Your task to perform on an android device: Add "logitech g933" to the cart on costco.com Image 0: 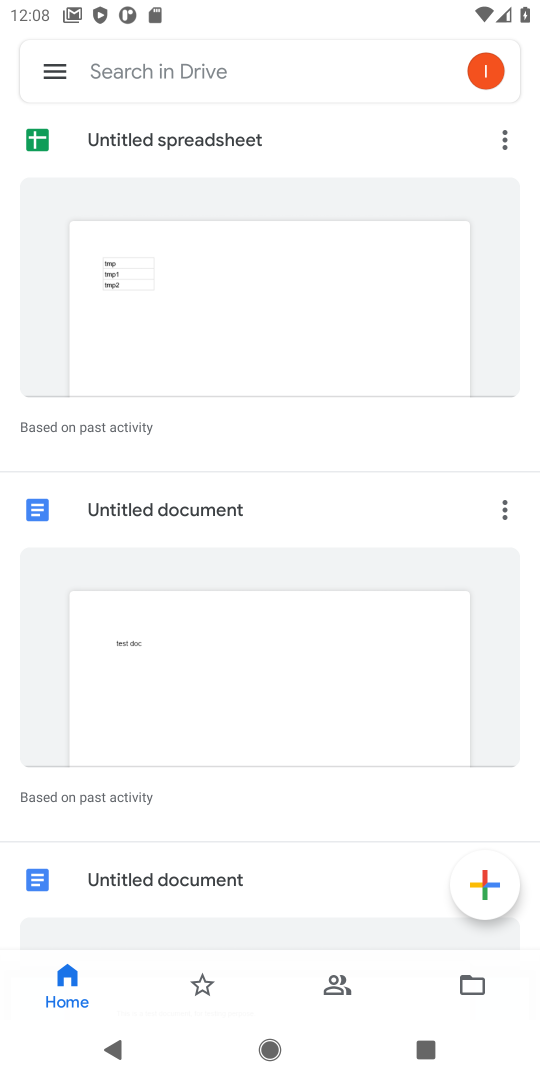
Step 0: press home button
Your task to perform on an android device: Add "logitech g933" to the cart on costco.com Image 1: 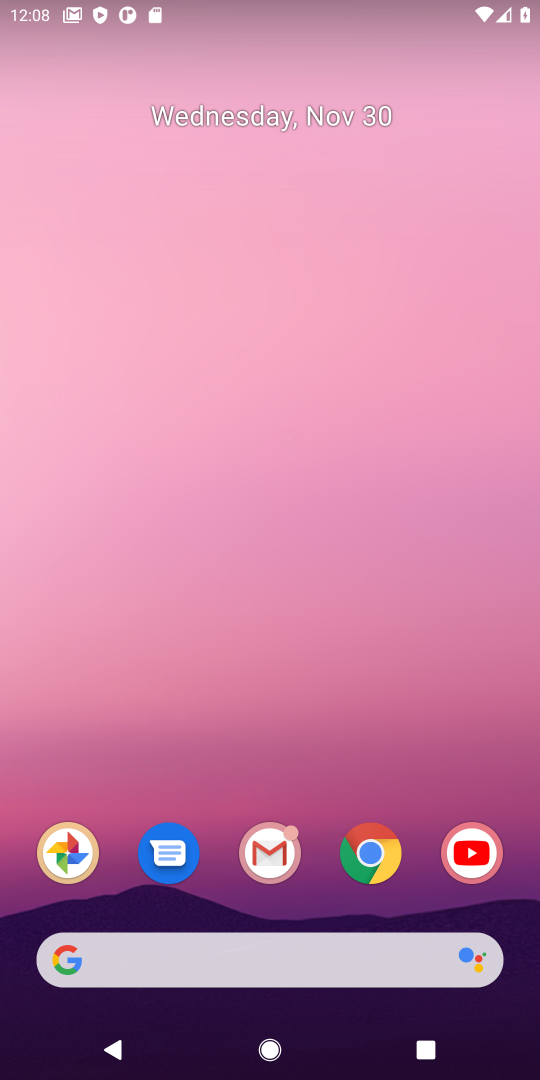
Step 1: click (364, 841)
Your task to perform on an android device: Add "logitech g933" to the cart on costco.com Image 2: 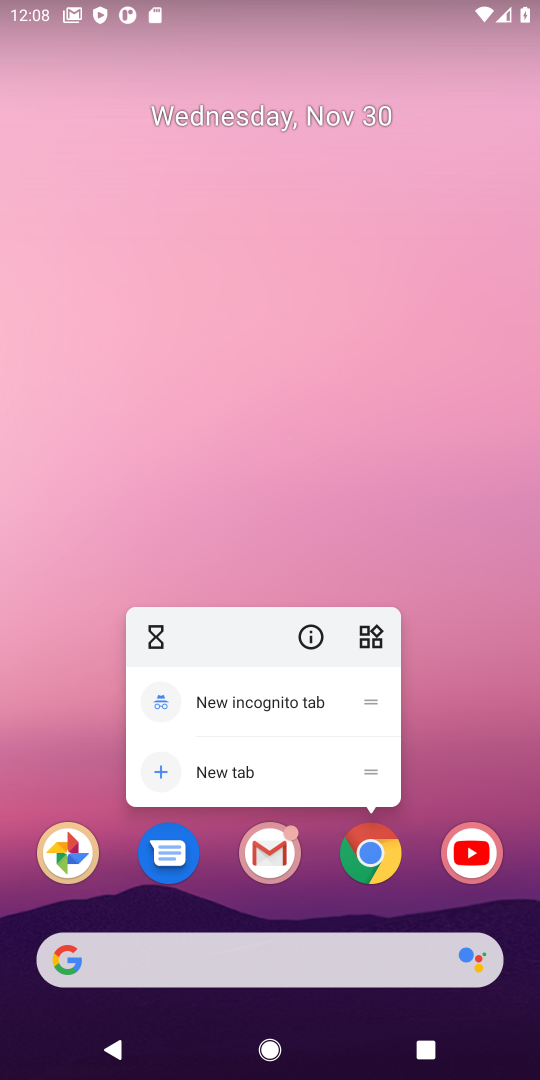
Step 2: click (364, 841)
Your task to perform on an android device: Add "logitech g933" to the cart on costco.com Image 3: 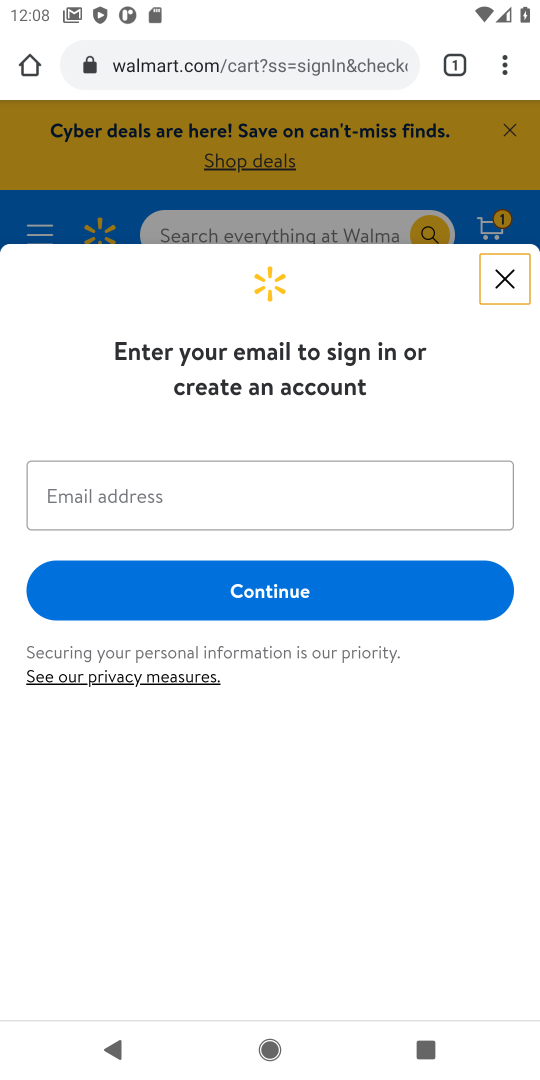
Step 3: click (220, 66)
Your task to perform on an android device: Add "logitech g933" to the cart on costco.com Image 4: 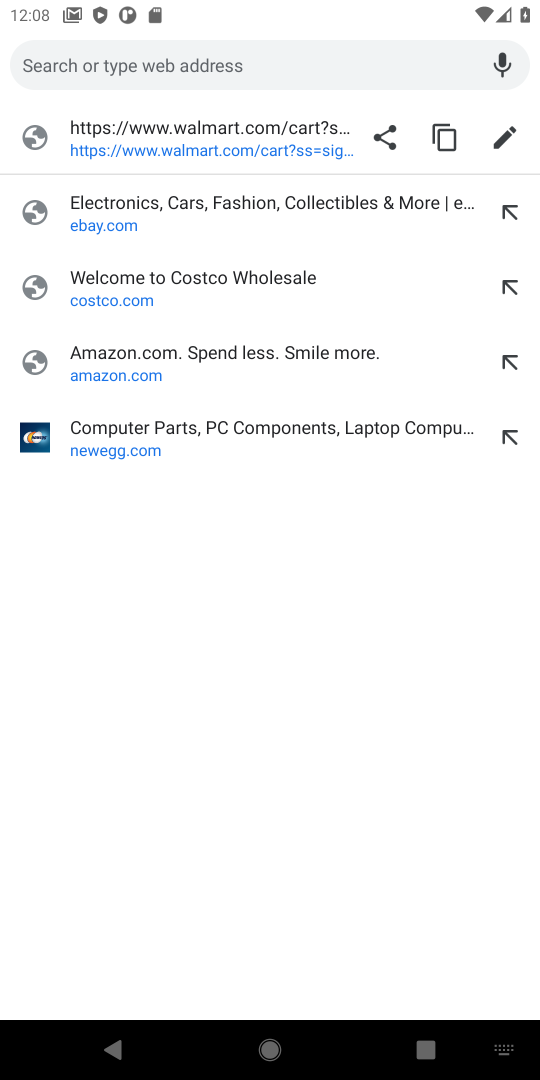
Step 4: click (103, 288)
Your task to perform on an android device: Add "logitech g933" to the cart on costco.com Image 5: 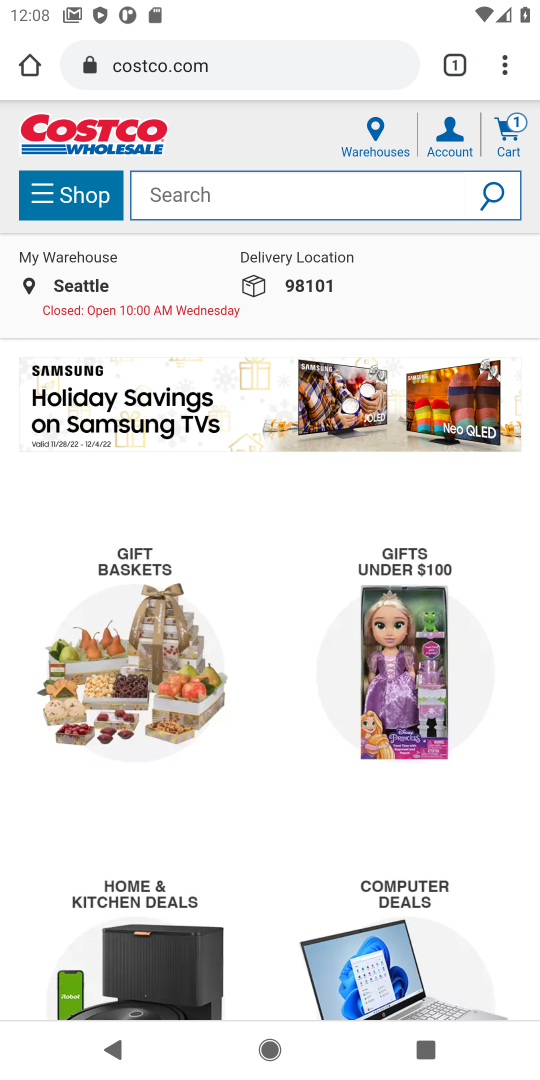
Step 5: click (176, 199)
Your task to perform on an android device: Add "logitech g933" to the cart on costco.com Image 6: 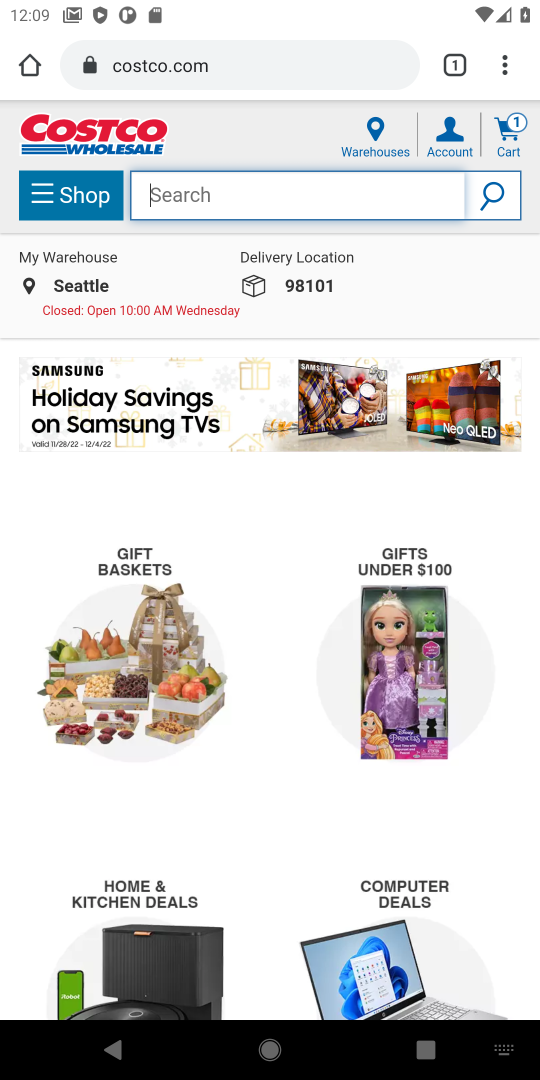
Step 6: type "logitech g933"
Your task to perform on an android device: Add "logitech g933" to the cart on costco.com Image 7: 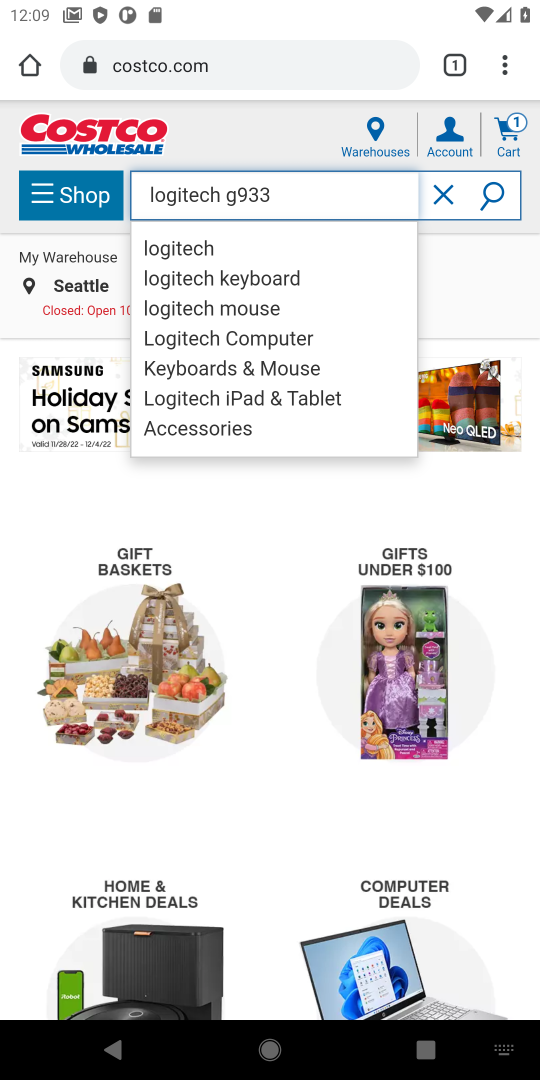
Step 7: click (495, 188)
Your task to perform on an android device: Add "logitech g933" to the cart on costco.com Image 8: 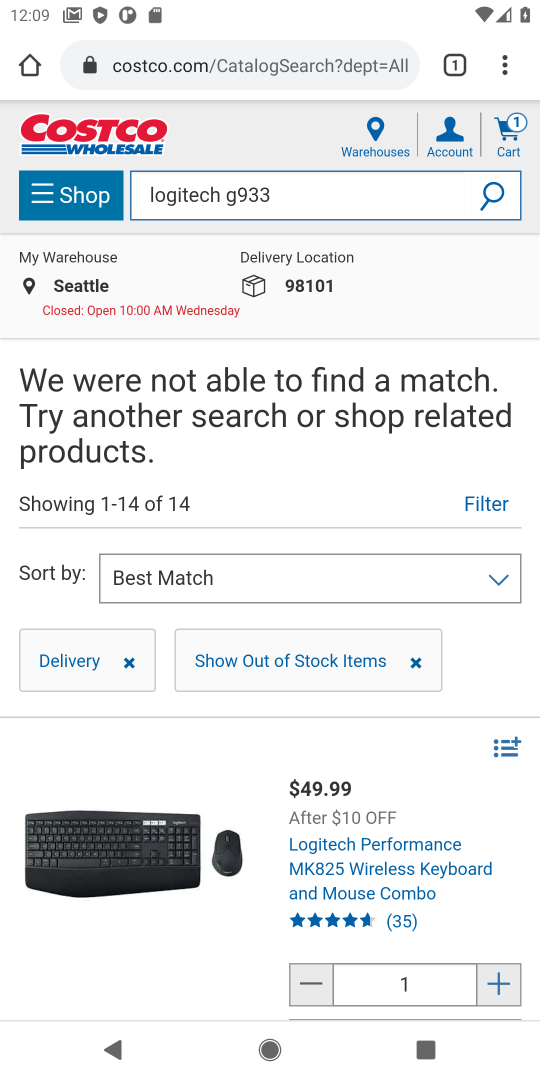
Step 8: task complete